Your task to perform on an android device: check android version Image 0: 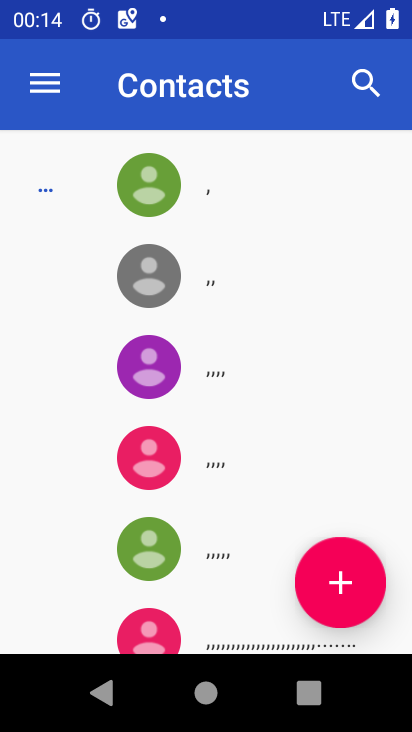
Step 0: press home button
Your task to perform on an android device: check android version Image 1: 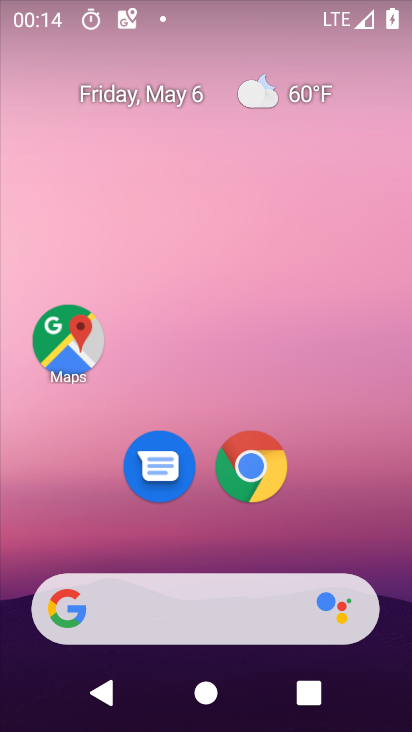
Step 1: drag from (220, 571) to (237, 217)
Your task to perform on an android device: check android version Image 2: 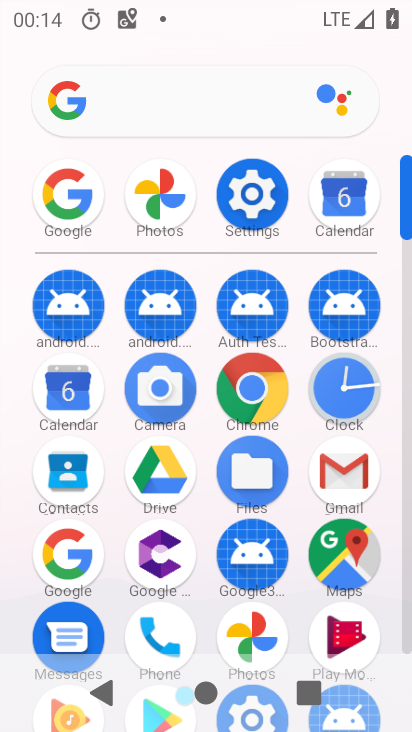
Step 2: click (252, 196)
Your task to perform on an android device: check android version Image 3: 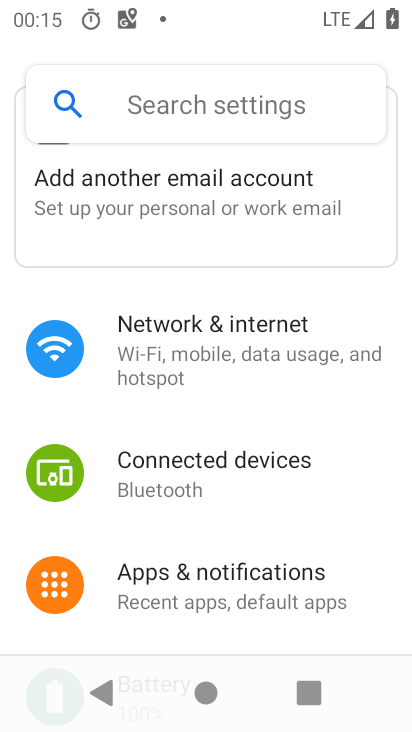
Step 3: drag from (155, 606) to (195, 342)
Your task to perform on an android device: check android version Image 4: 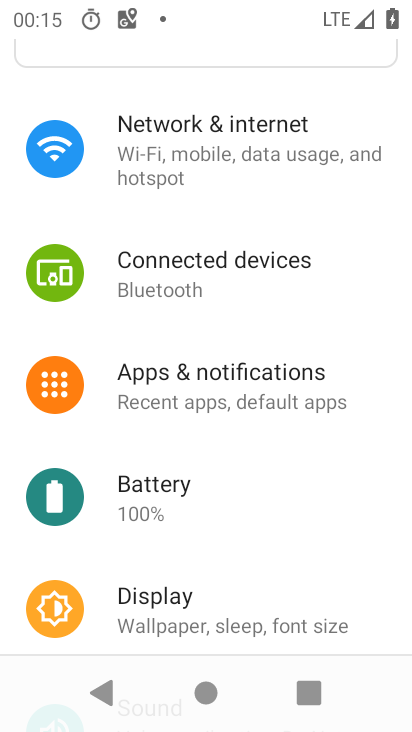
Step 4: drag from (249, 572) to (320, 221)
Your task to perform on an android device: check android version Image 5: 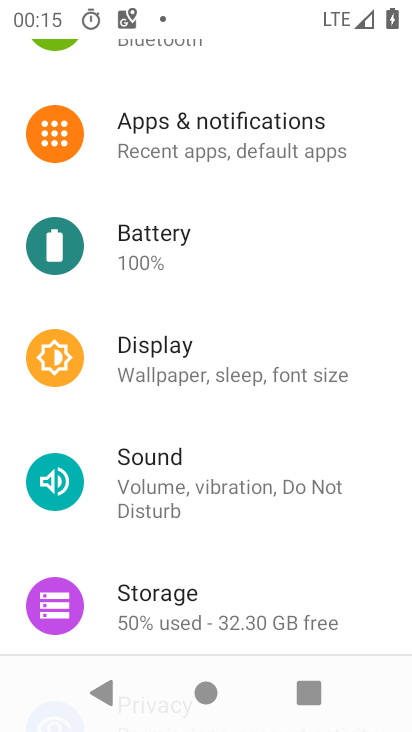
Step 5: drag from (272, 568) to (344, 185)
Your task to perform on an android device: check android version Image 6: 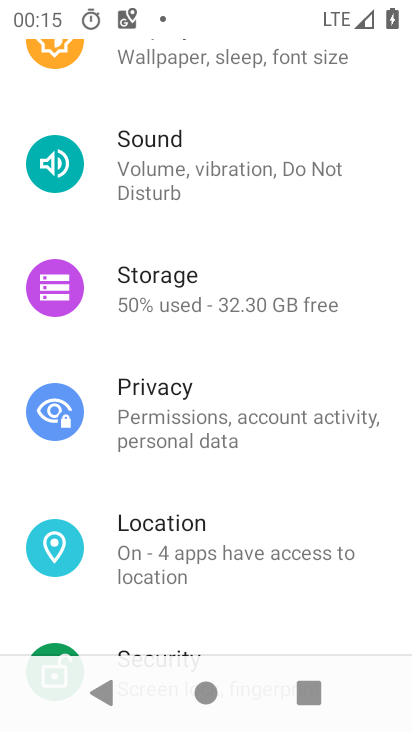
Step 6: drag from (242, 607) to (240, 216)
Your task to perform on an android device: check android version Image 7: 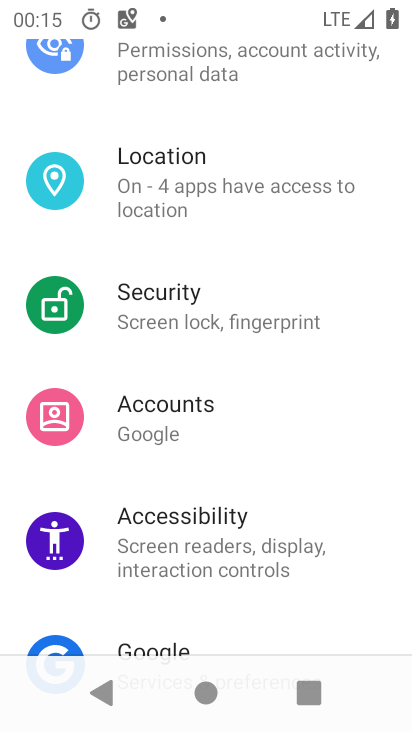
Step 7: drag from (196, 594) to (189, 191)
Your task to perform on an android device: check android version Image 8: 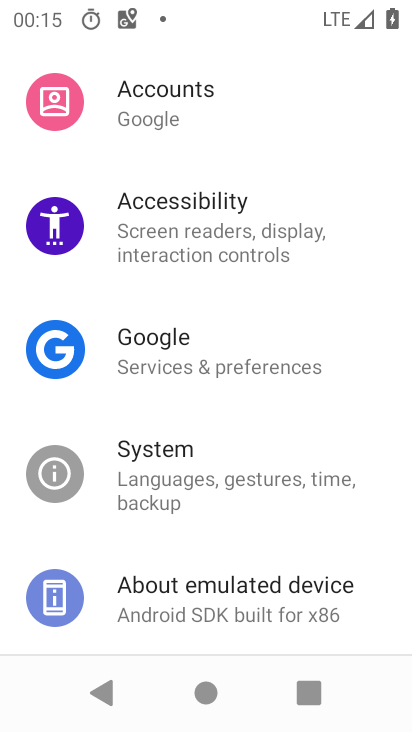
Step 8: drag from (176, 586) to (237, 230)
Your task to perform on an android device: check android version Image 9: 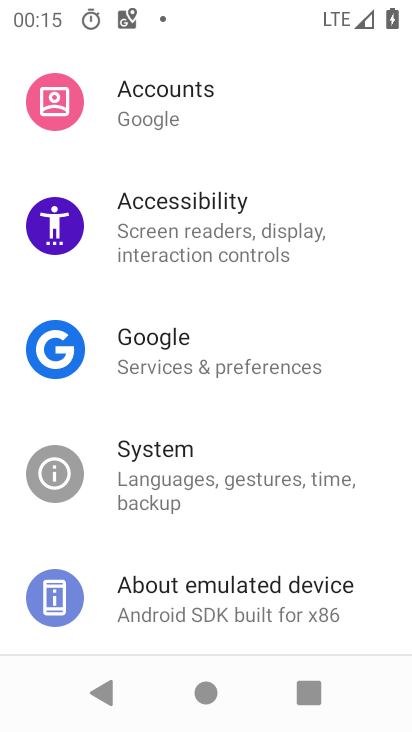
Step 9: click (178, 603)
Your task to perform on an android device: check android version Image 10: 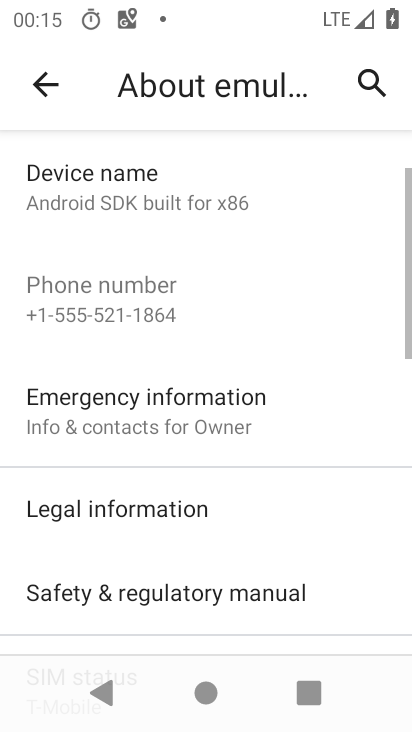
Step 10: drag from (135, 617) to (190, 244)
Your task to perform on an android device: check android version Image 11: 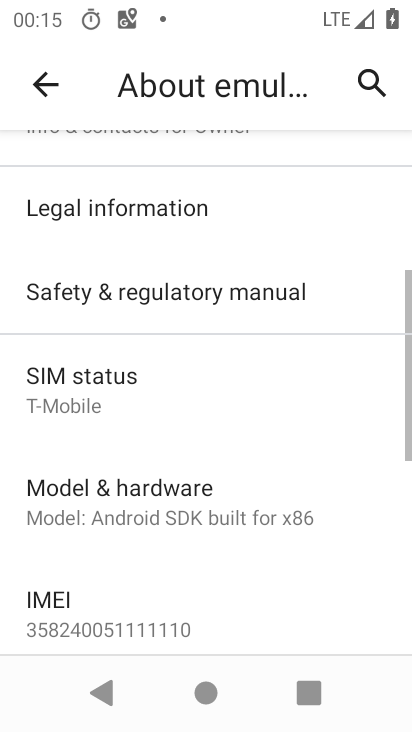
Step 11: drag from (162, 629) to (206, 285)
Your task to perform on an android device: check android version Image 12: 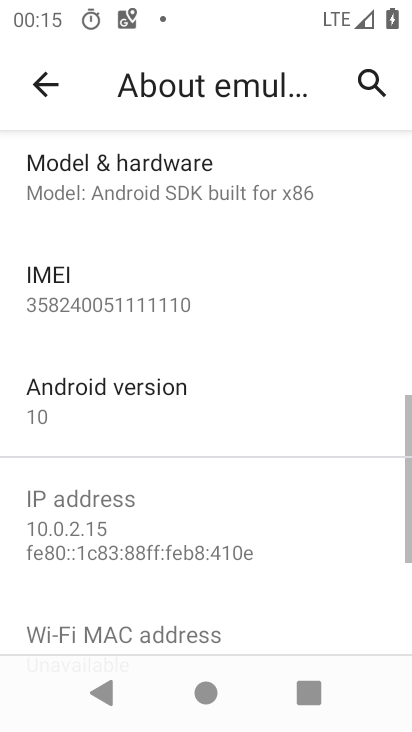
Step 12: click (72, 397)
Your task to perform on an android device: check android version Image 13: 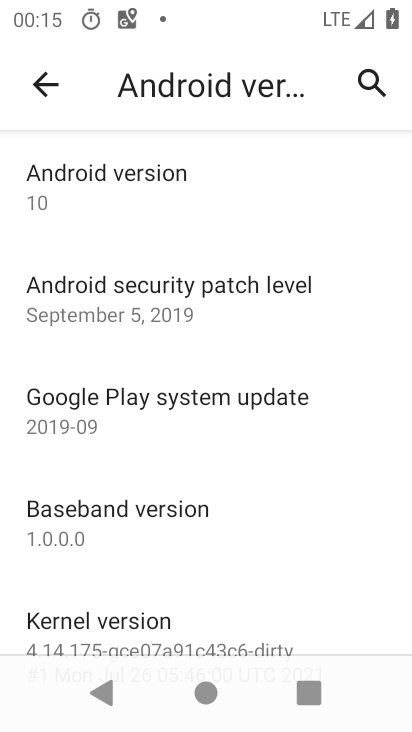
Step 13: task complete